Your task to perform on an android device: Open Google Maps Image 0: 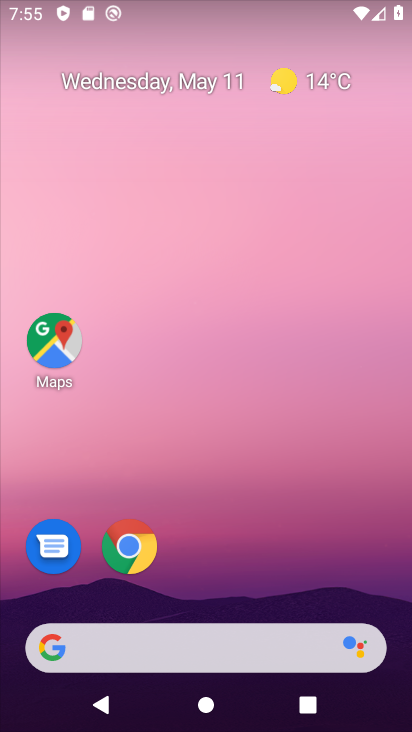
Step 0: click (51, 334)
Your task to perform on an android device: Open Google Maps Image 1: 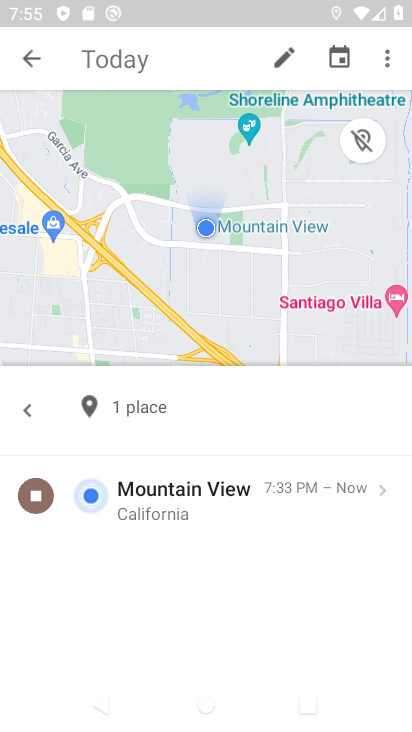
Step 1: task complete